Your task to perform on an android device: What is the recent news? Image 0: 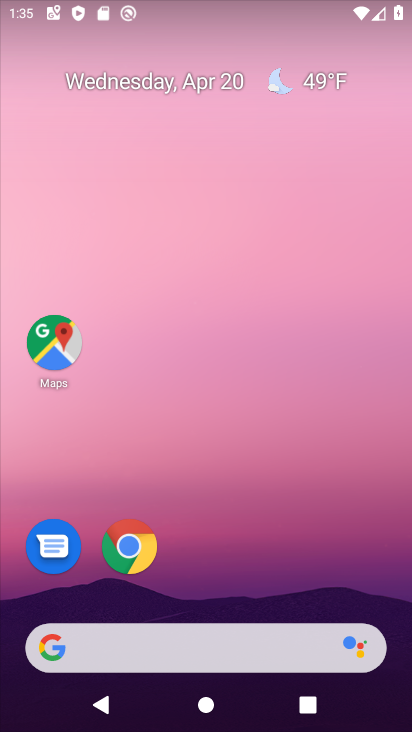
Step 0: click (125, 646)
Your task to perform on an android device: What is the recent news? Image 1: 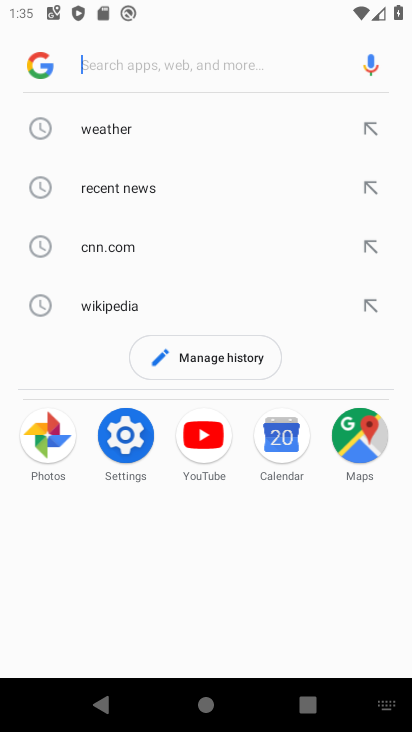
Step 1: click (157, 191)
Your task to perform on an android device: What is the recent news? Image 2: 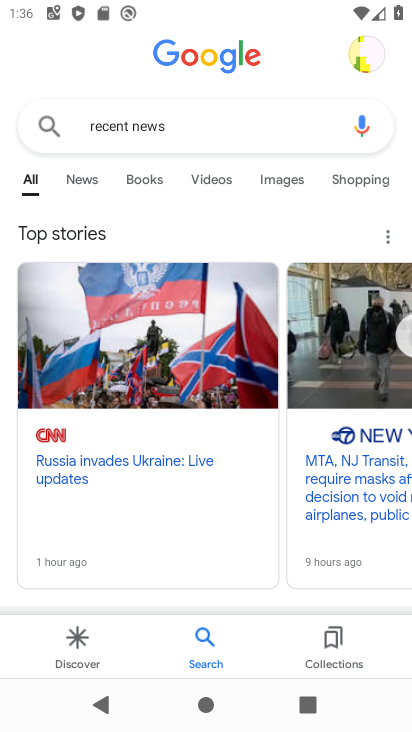
Step 2: task complete